Your task to perform on an android device: open app "Messenger Lite" Image 0: 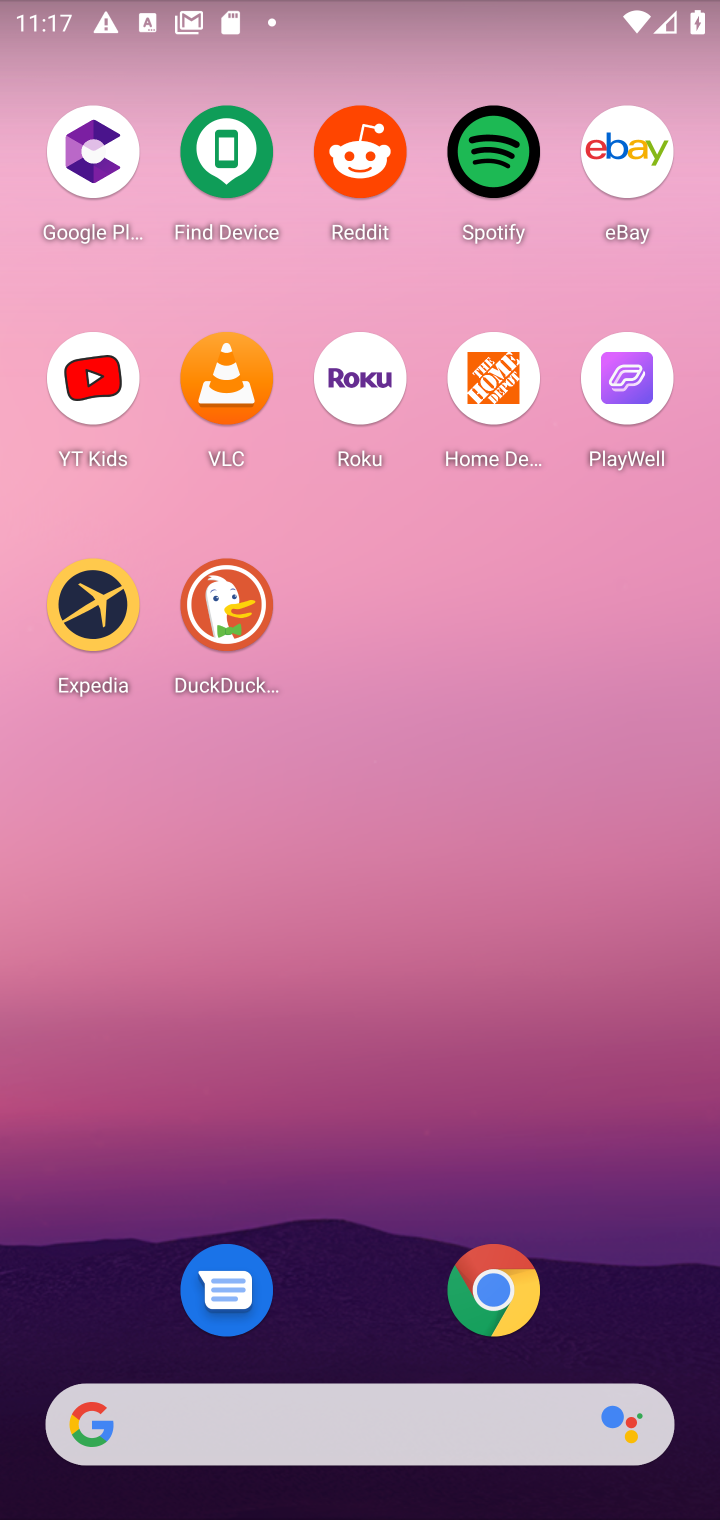
Step 0: drag from (292, 563) to (288, 62)
Your task to perform on an android device: open app "Messenger Lite" Image 1: 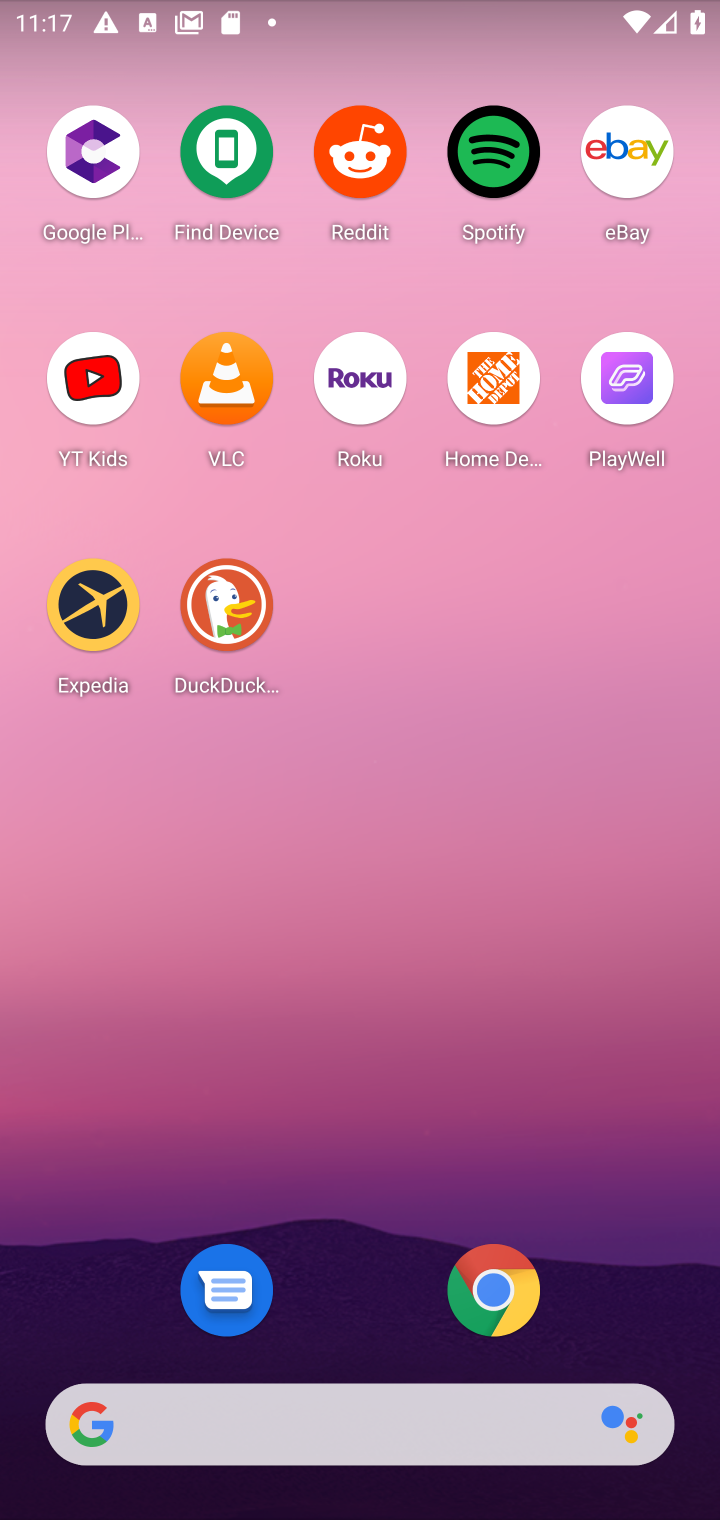
Step 1: drag from (369, 1364) to (241, 190)
Your task to perform on an android device: open app "Messenger Lite" Image 2: 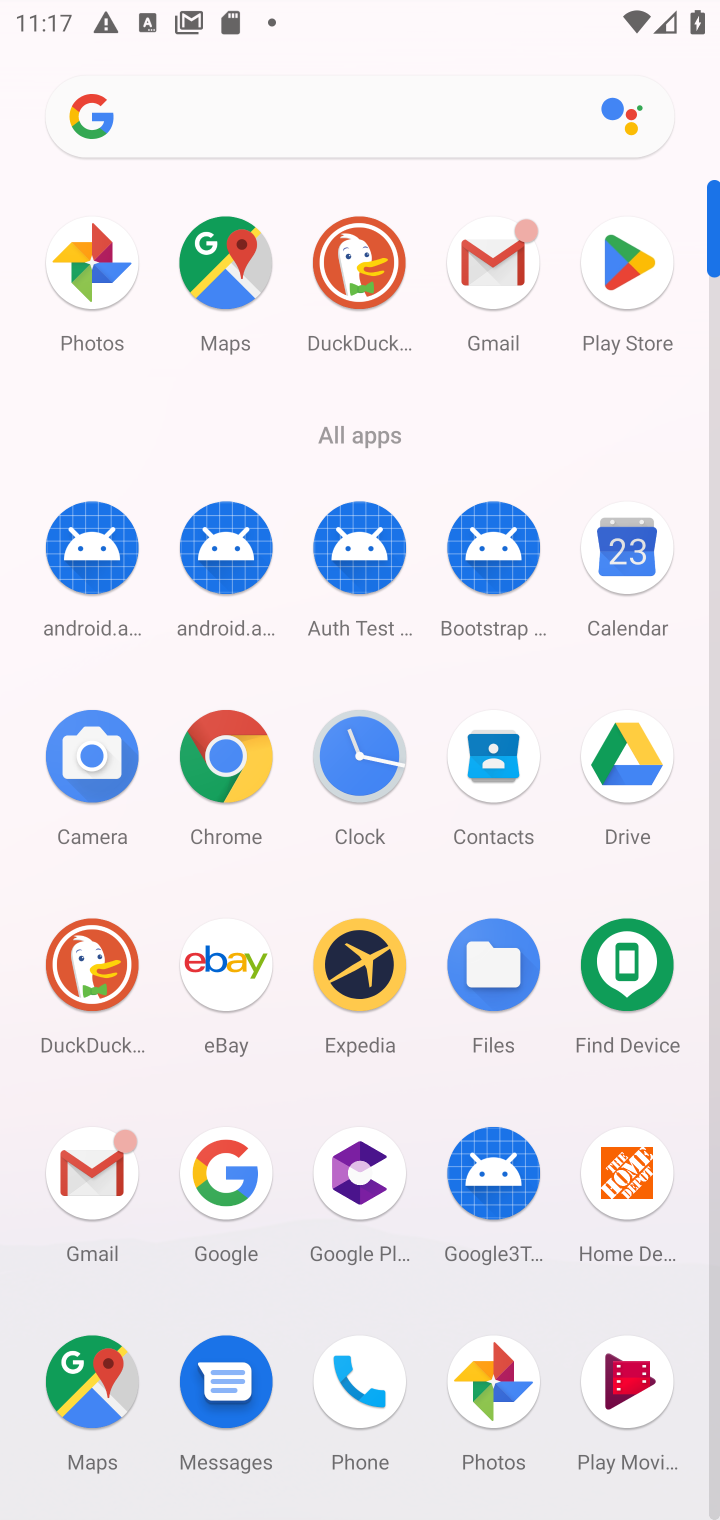
Step 2: click (619, 265)
Your task to perform on an android device: open app "Messenger Lite" Image 3: 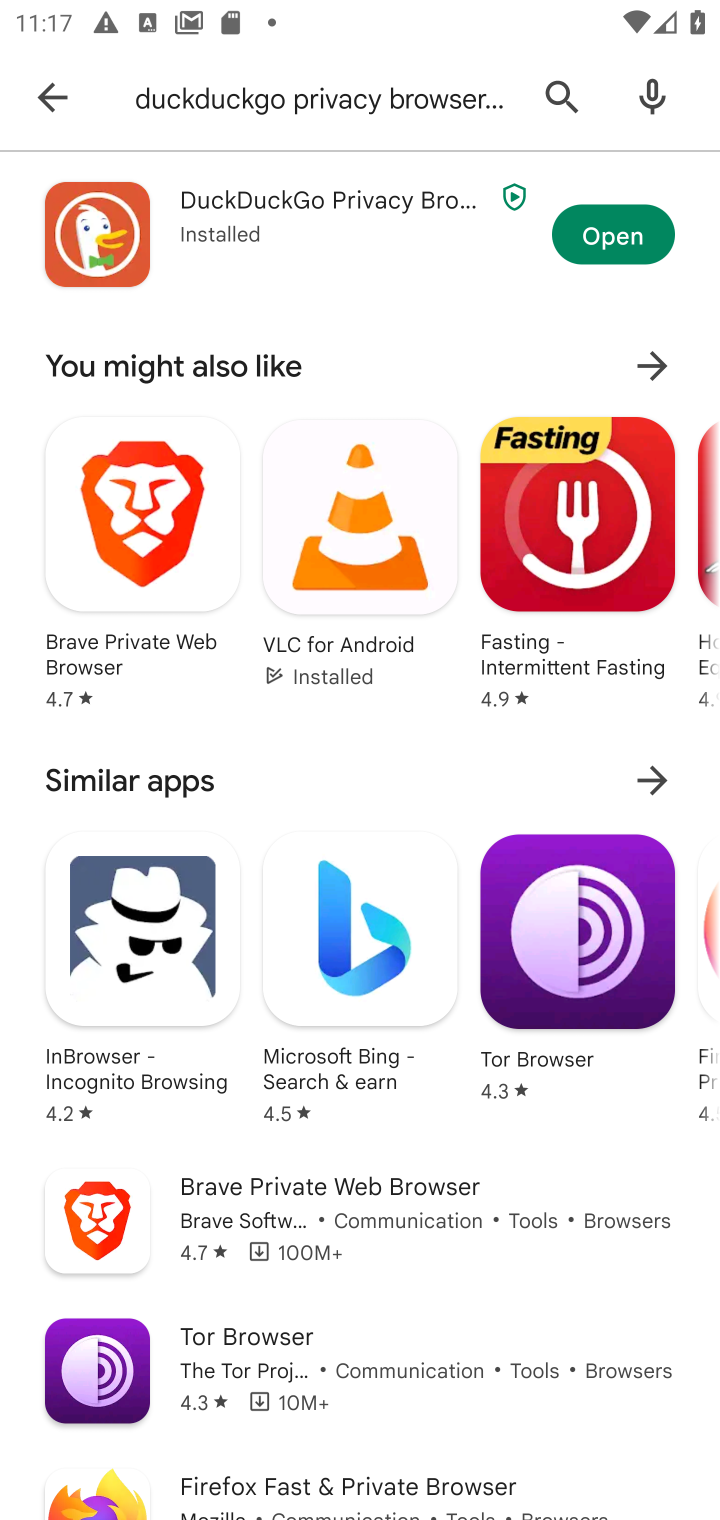
Step 3: click (558, 83)
Your task to perform on an android device: open app "Messenger Lite" Image 4: 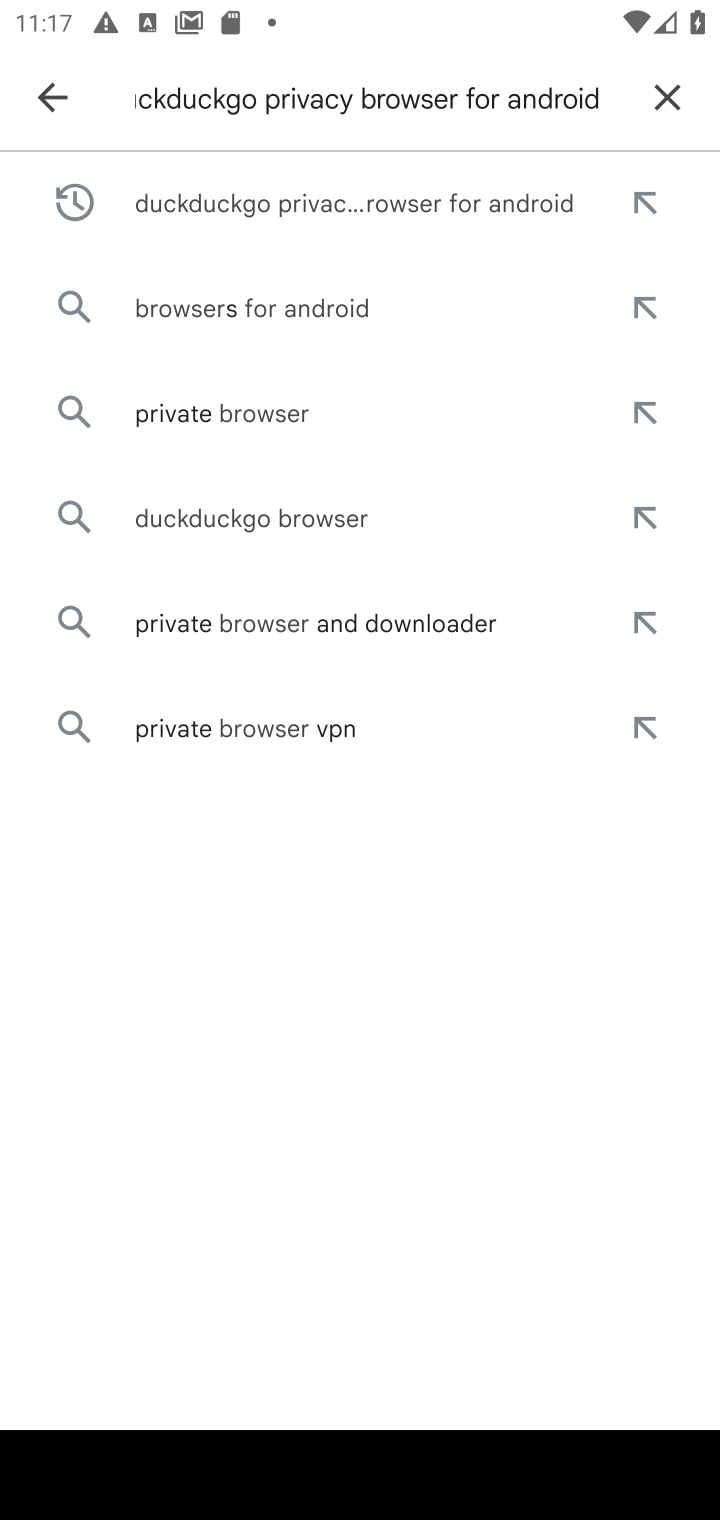
Step 4: click (664, 95)
Your task to perform on an android device: open app "Messenger Lite" Image 5: 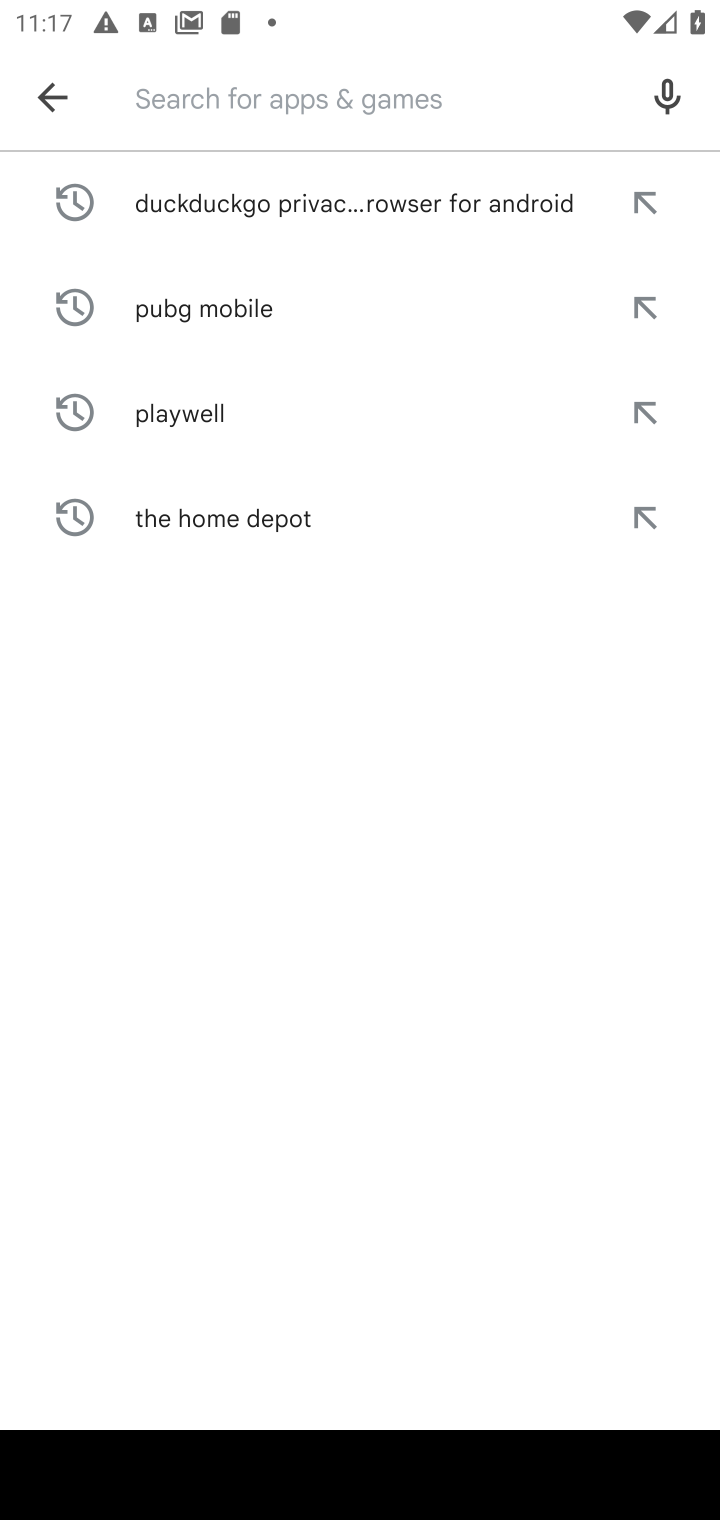
Step 5: type "Messenger Lite"
Your task to perform on an android device: open app "Messenger Lite" Image 6: 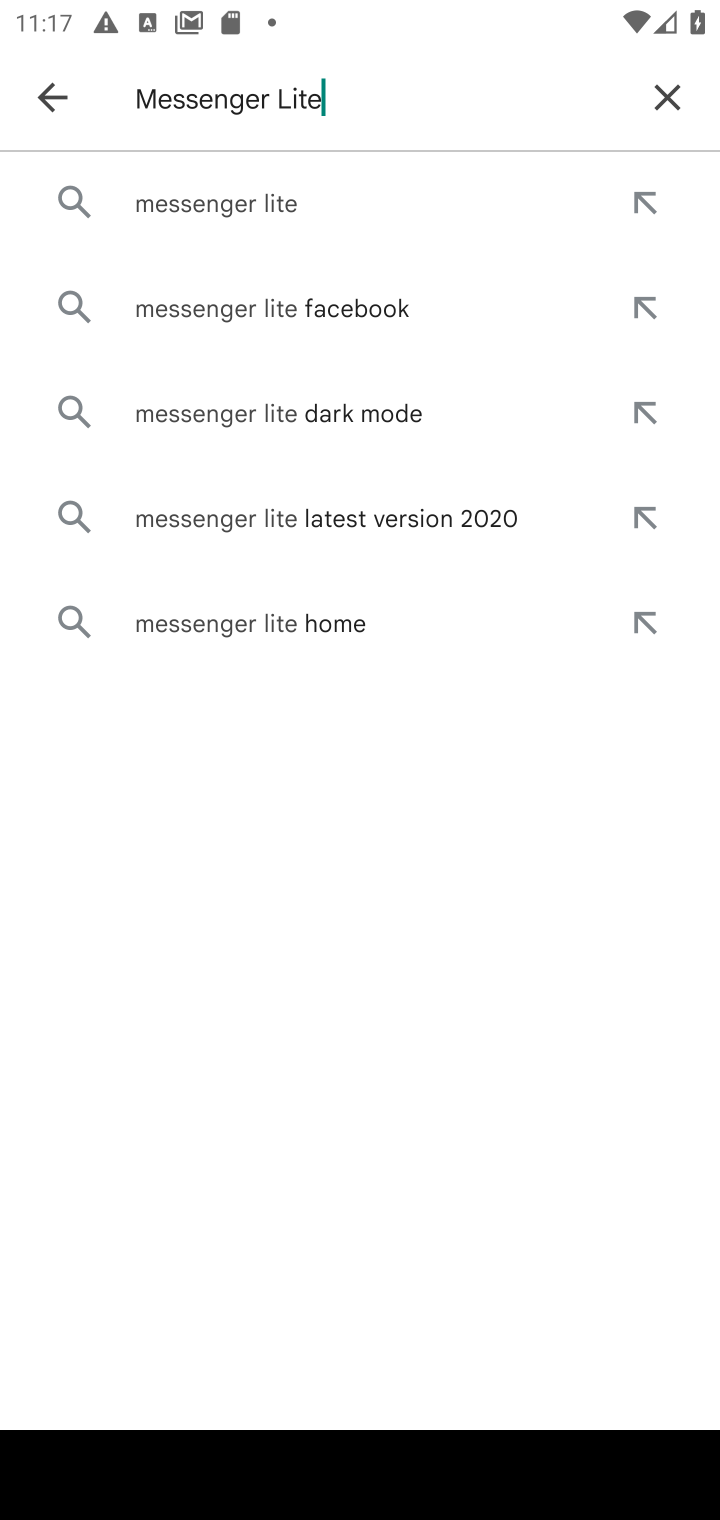
Step 6: click (245, 201)
Your task to perform on an android device: open app "Messenger Lite" Image 7: 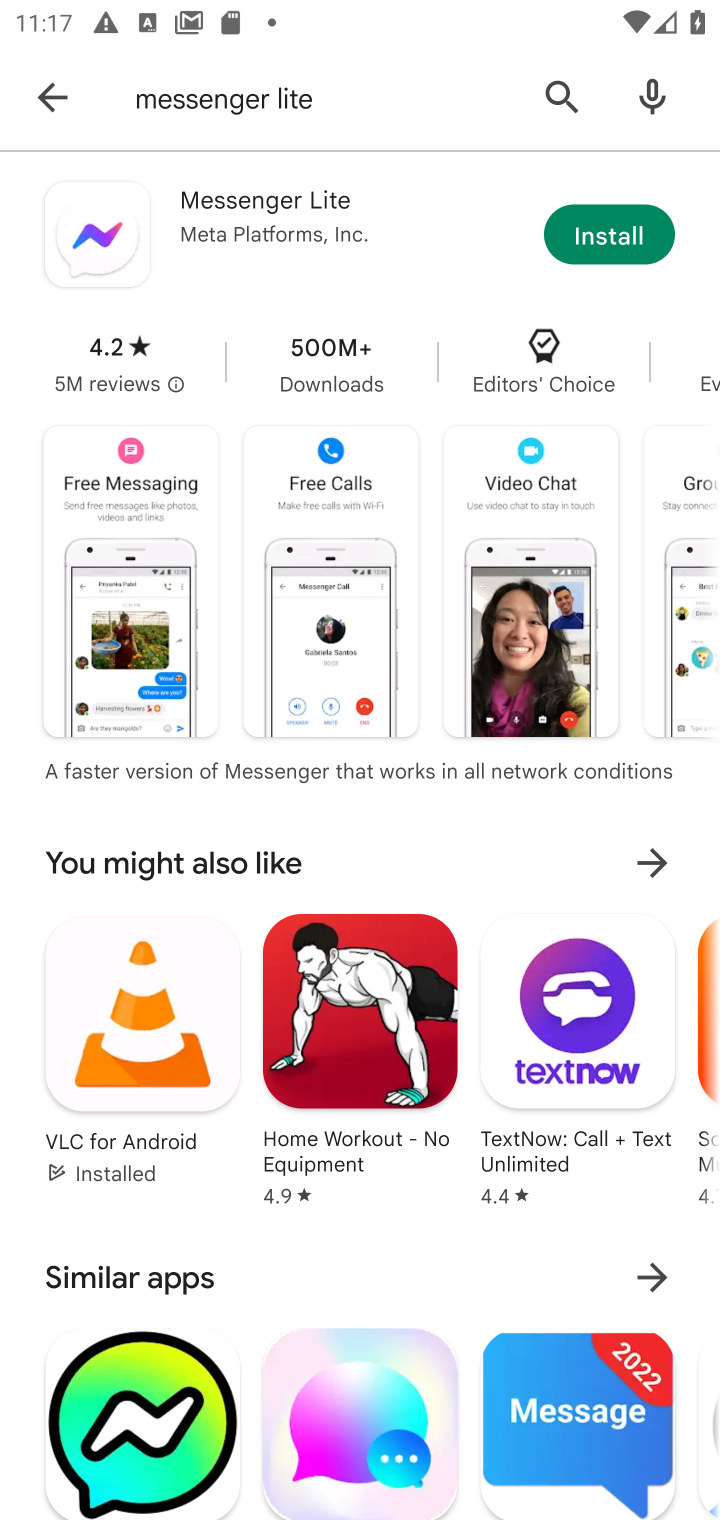
Step 7: task complete